Your task to perform on an android device: Open Google Maps and go to "Timeline" Image 0: 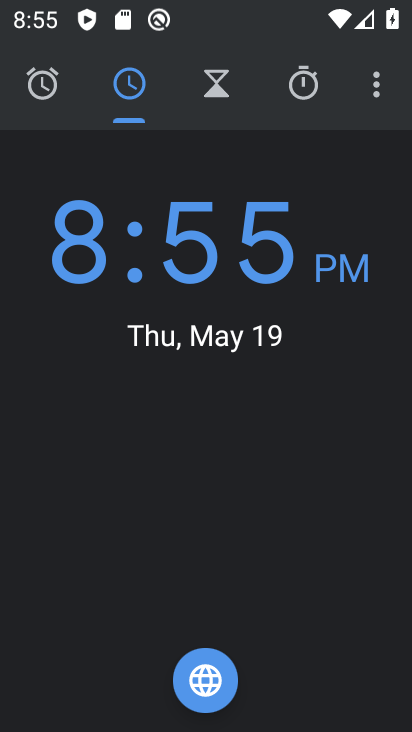
Step 0: press home button
Your task to perform on an android device: Open Google Maps and go to "Timeline" Image 1: 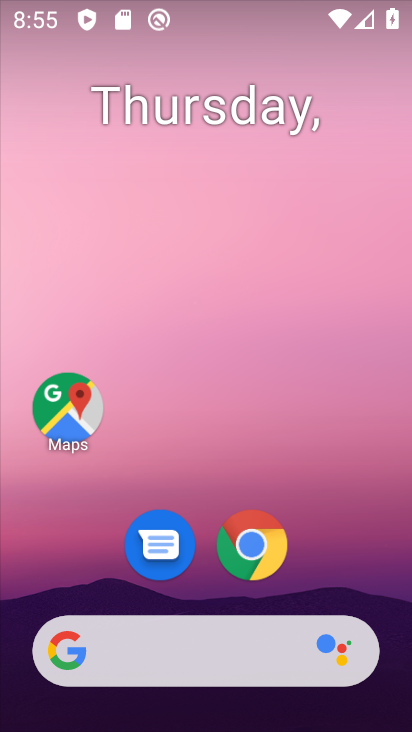
Step 1: drag from (401, 629) to (271, 2)
Your task to perform on an android device: Open Google Maps and go to "Timeline" Image 2: 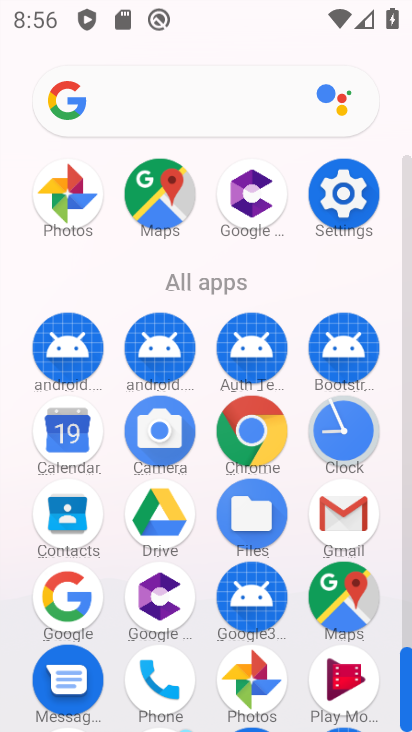
Step 2: click (325, 612)
Your task to perform on an android device: Open Google Maps and go to "Timeline" Image 3: 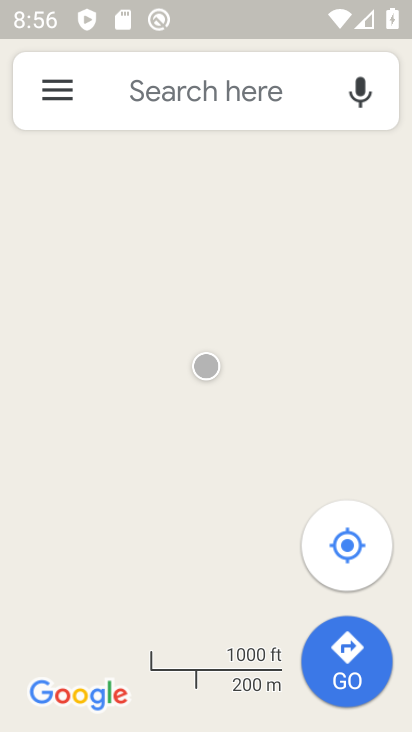
Step 3: click (53, 98)
Your task to perform on an android device: Open Google Maps and go to "Timeline" Image 4: 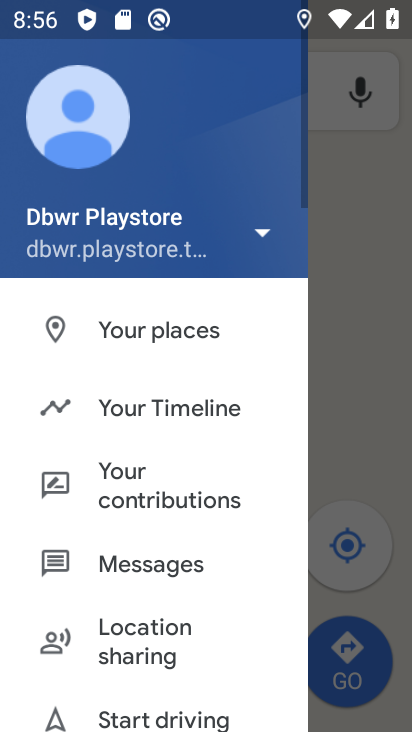
Step 4: click (147, 436)
Your task to perform on an android device: Open Google Maps and go to "Timeline" Image 5: 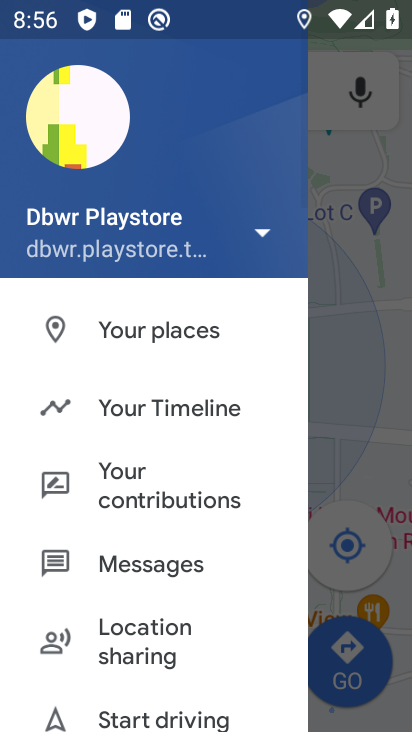
Step 5: click (150, 410)
Your task to perform on an android device: Open Google Maps and go to "Timeline" Image 6: 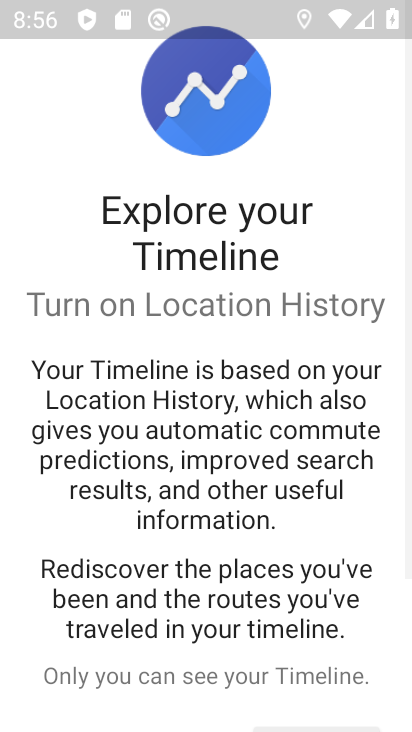
Step 6: task complete